Your task to perform on an android device: Search for vegetarian restaurants on Maps Image 0: 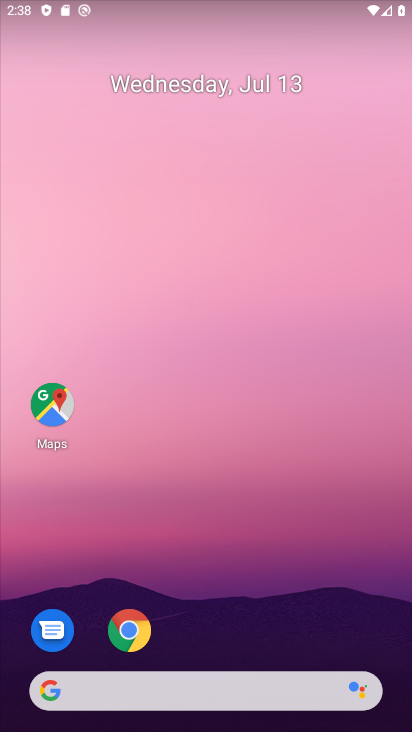
Step 0: drag from (249, 633) to (189, 200)
Your task to perform on an android device: Search for vegetarian restaurants on Maps Image 1: 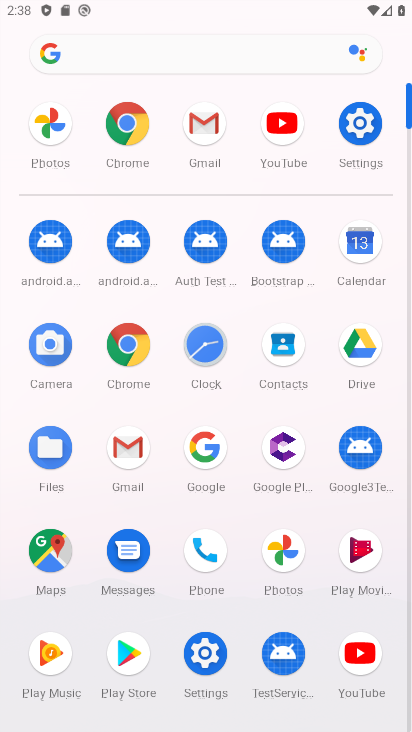
Step 1: click (45, 548)
Your task to perform on an android device: Search for vegetarian restaurants on Maps Image 2: 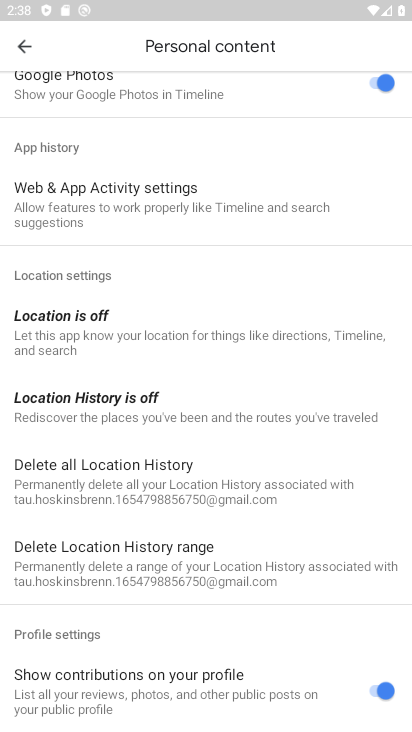
Step 2: click (24, 44)
Your task to perform on an android device: Search for vegetarian restaurants on Maps Image 3: 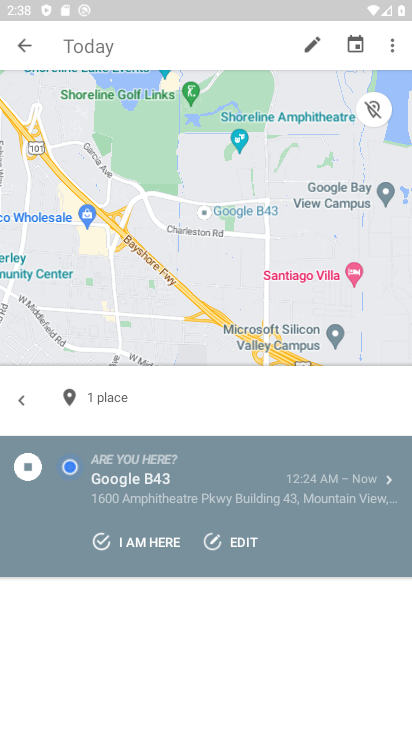
Step 3: click (24, 44)
Your task to perform on an android device: Search for vegetarian restaurants on Maps Image 4: 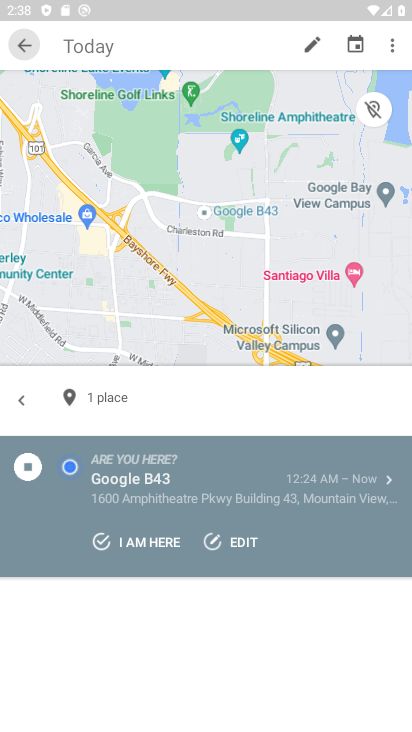
Step 4: click (24, 44)
Your task to perform on an android device: Search for vegetarian restaurants on Maps Image 5: 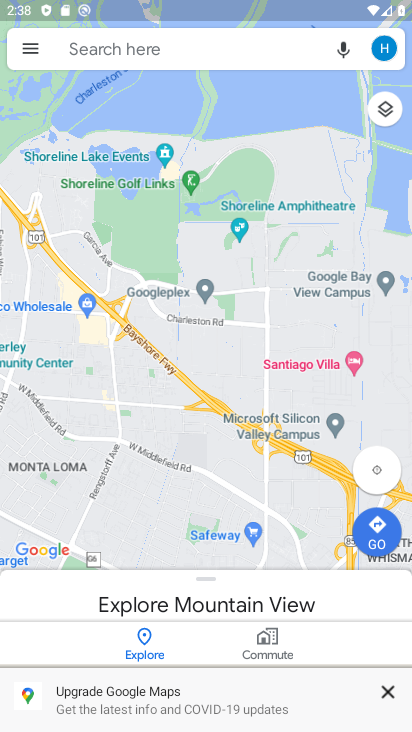
Step 5: click (159, 44)
Your task to perform on an android device: Search for vegetarian restaurants on Maps Image 6: 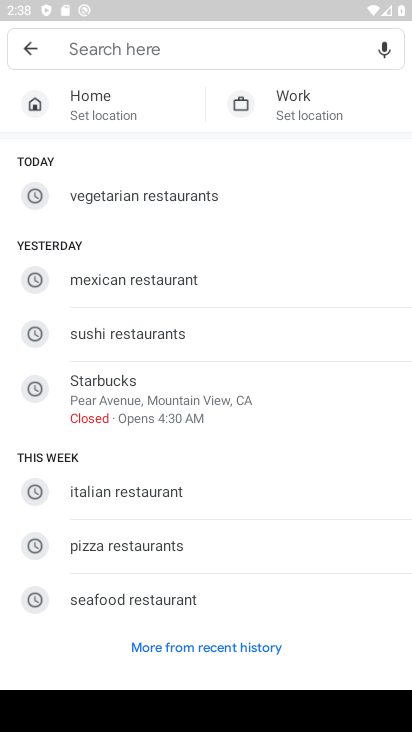
Step 6: click (230, 189)
Your task to perform on an android device: Search for vegetarian restaurants on Maps Image 7: 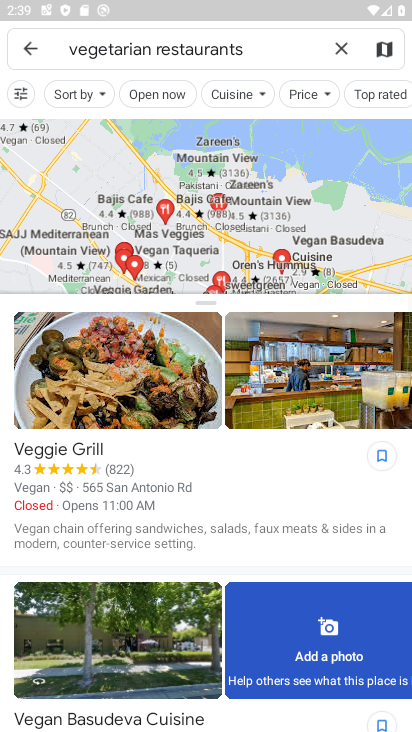
Step 7: task complete